Your task to perform on an android device: What's on my calendar tomorrow? Image 0: 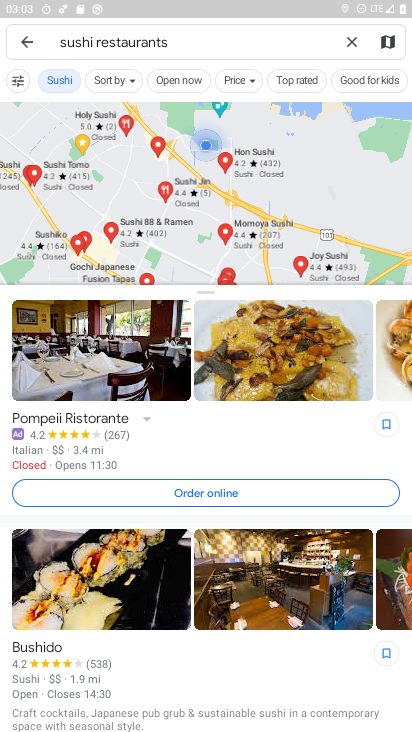
Step 0: press home button
Your task to perform on an android device: What's on my calendar tomorrow? Image 1: 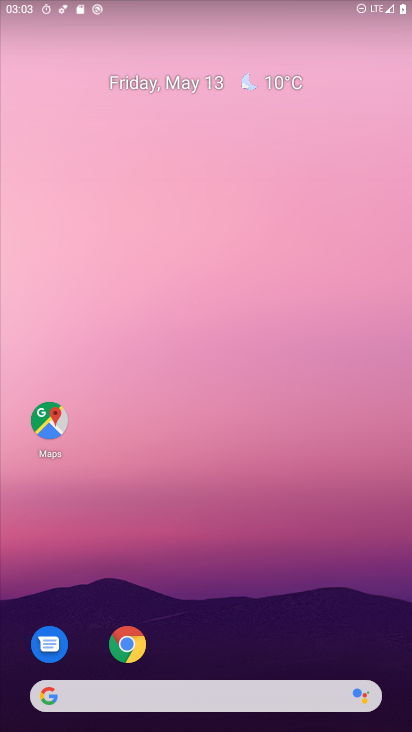
Step 1: drag from (239, 687) to (299, 41)
Your task to perform on an android device: What's on my calendar tomorrow? Image 2: 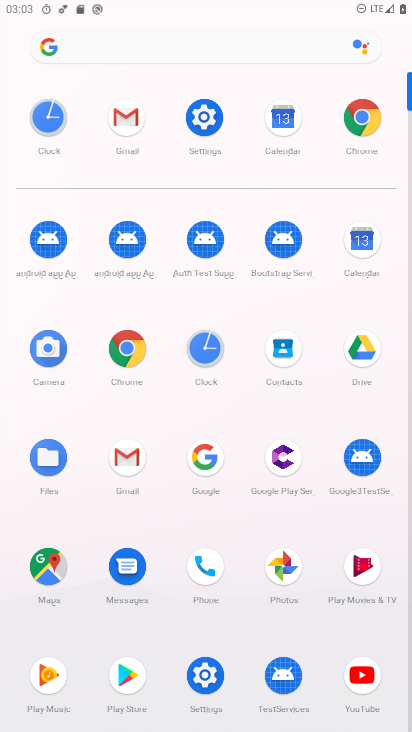
Step 2: click (348, 238)
Your task to perform on an android device: What's on my calendar tomorrow? Image 3: 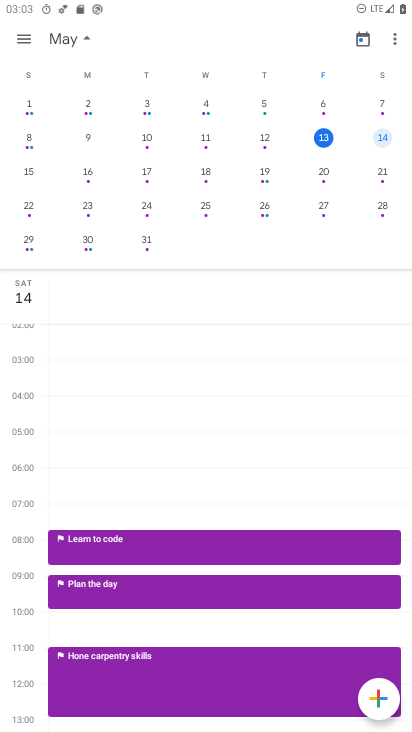
Step 3: click (380, 136)
Your task to perform on an android device: What's on my calendar tomorrow? Image 4: 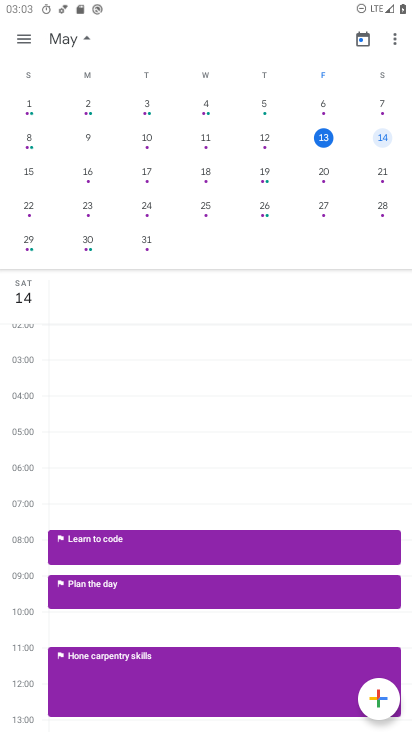
Step 4: task complete